Your task to perform on an android device: turn off location history Image 0: 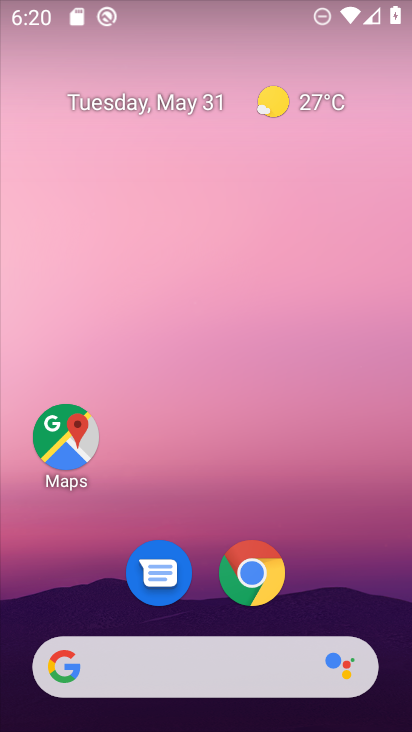
Step 0: drag from (390, 475) to (346, 35)
Your task to perform on an android device: turn off location history Image 1: 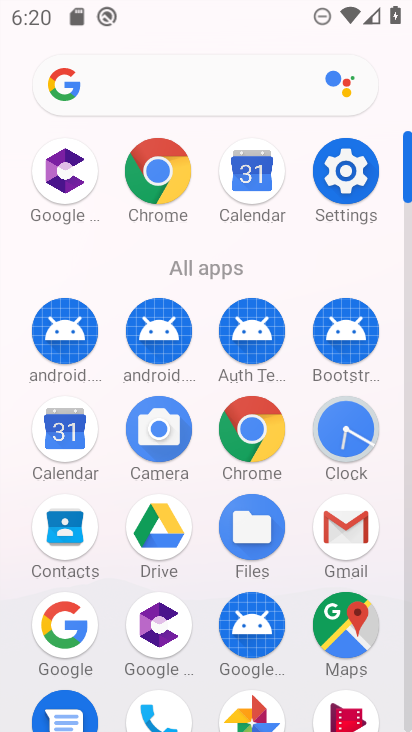
Step 1: click (333, 178)
Your task to perform on an android device: turn off location history Image 2: 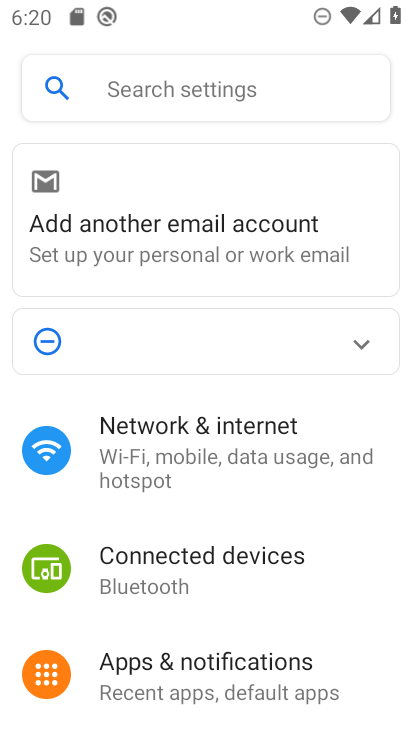
Step 2: drag from (240, 618) to (231, 63)
Your task to perform on an android device: turn off location history Image 3: 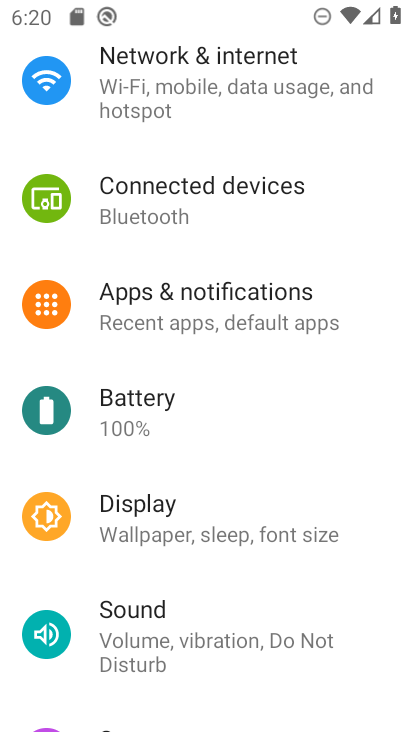
Step 3: drag from (159, 603) to (132, 48)
Your task to perform on an android device: turn off location history Image 4: 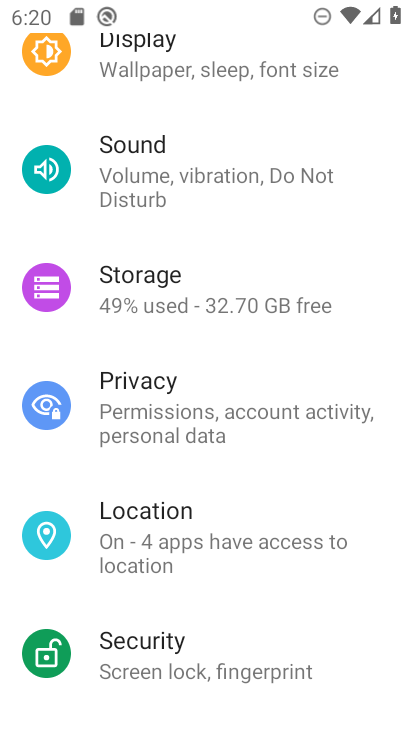
Step 4: click (202, 516)
Your task to perform on an android device: turn off location history Image 5: 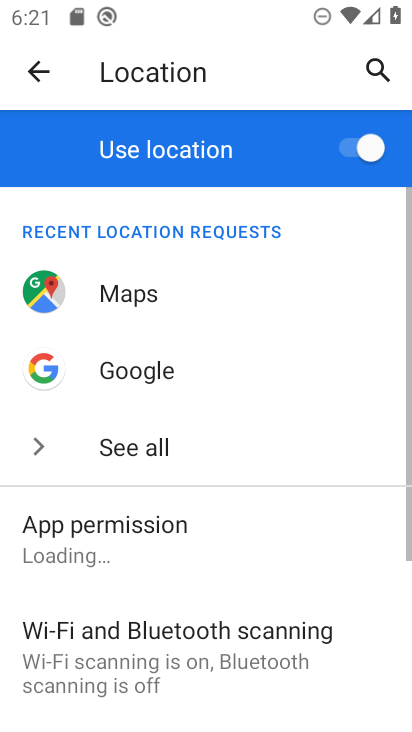
Step 5: drag from (202, 516) to (202, 104)
Your task to perform on an android device: turn off location history Image 6: 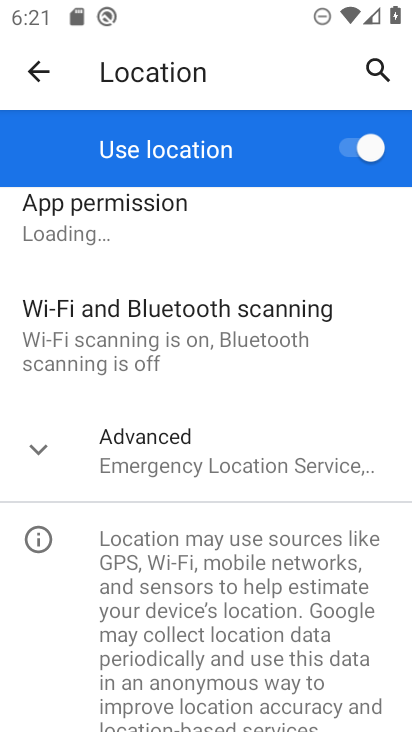
Step 6: click (105, 458)
Your task to perform on an android device: turn off location history Image 7: 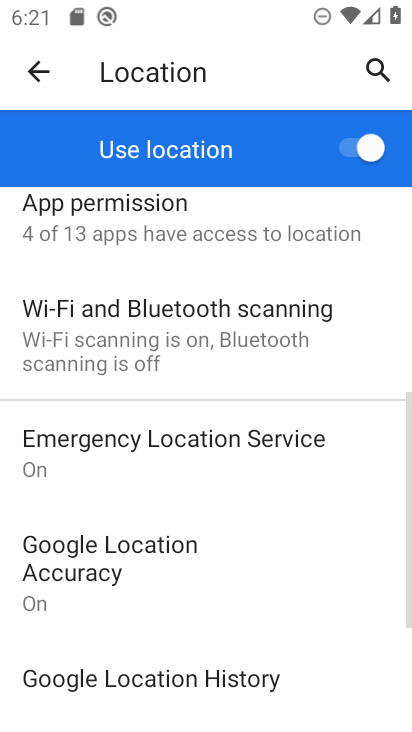
Step 7: click (160, 677)
Your task to perform on an android device: turn off location history Image 8: 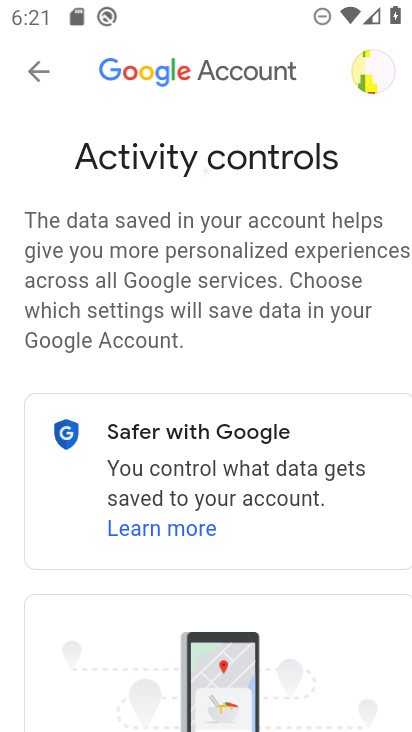
Step 8: task complete